Your task to perform on an android device: turn on airplane mode Image 0: 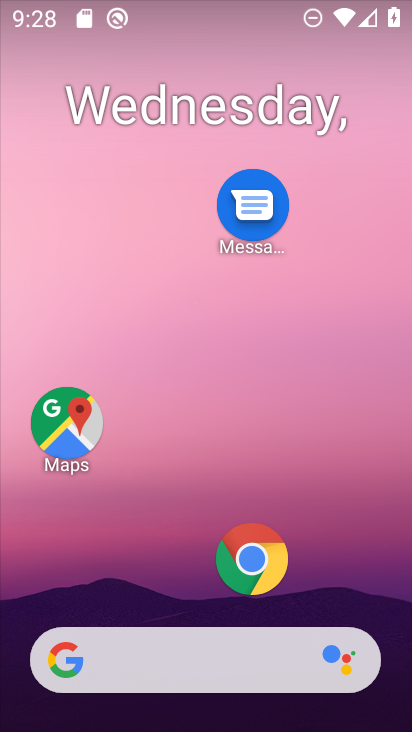
Step 0: drag from (143, 657) to (139, 229)
Your task to perform on an android device: turn on airplane mode Image 1: 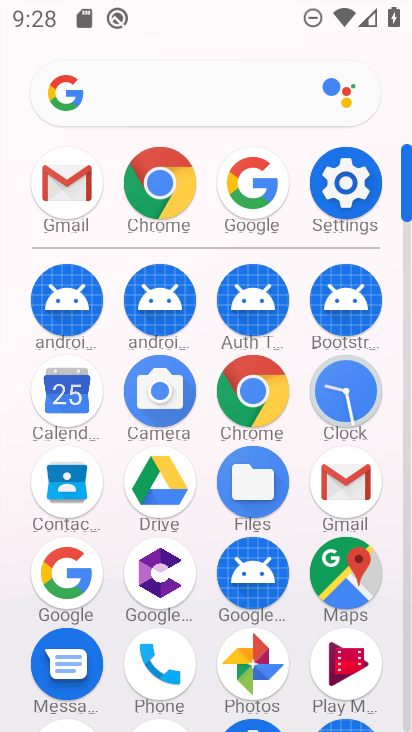
Step 1: click (347, 205)
Your task to perform on an android device: turn on airplane mode Image 2: 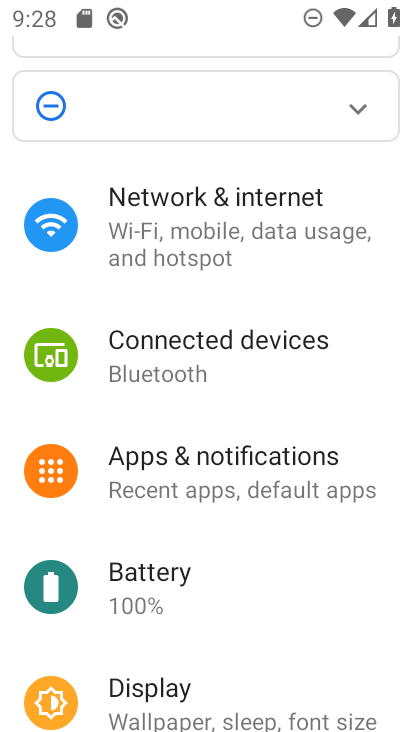
Step 2: click (199, 230)
Your task to perform on an android device: turn on airplane mode Image 3: 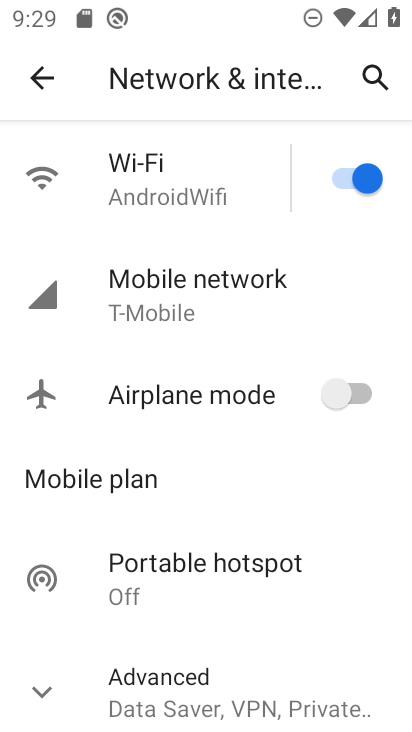
Step 3: click (207, 410)
Your task to perform on an android device: turn on airplane mode Image 4: 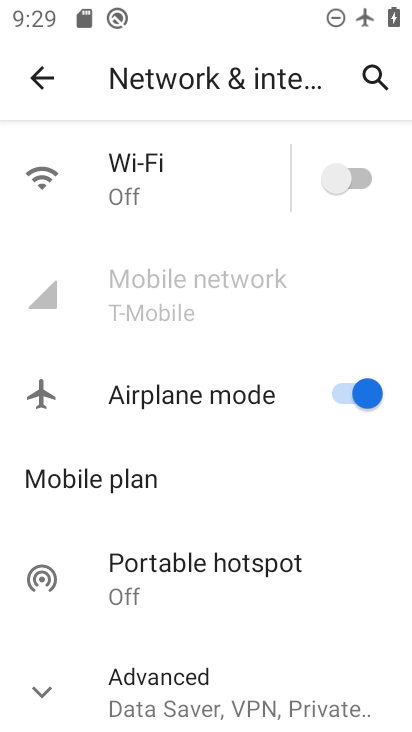
Step 4: task complete